Your task to perform on an android device: Open settings Image 0: 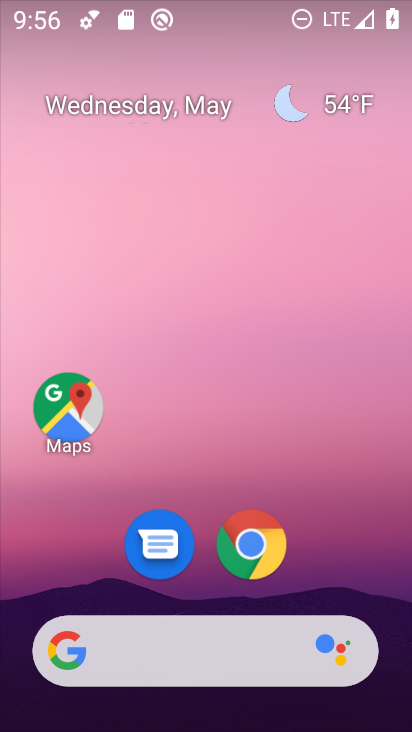
Step 0: drag from (189, 584) to (196, 134)
Your task to perform on an android device: Open settings Image 1: 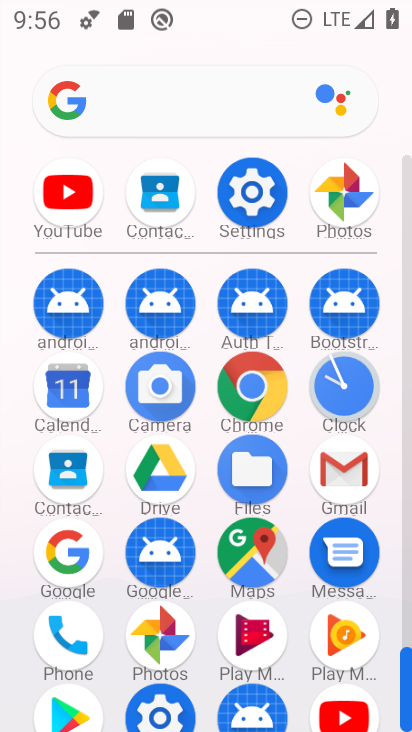
Step 1: click (233, 193)
Your task to perform on an android device: Open settings Image 2: 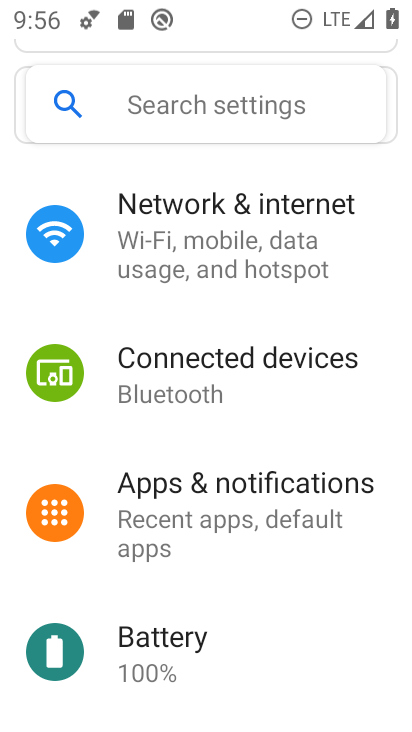
Step 2: task complete